Your task to perform on an android device: Go to Wikipedia Image 0: 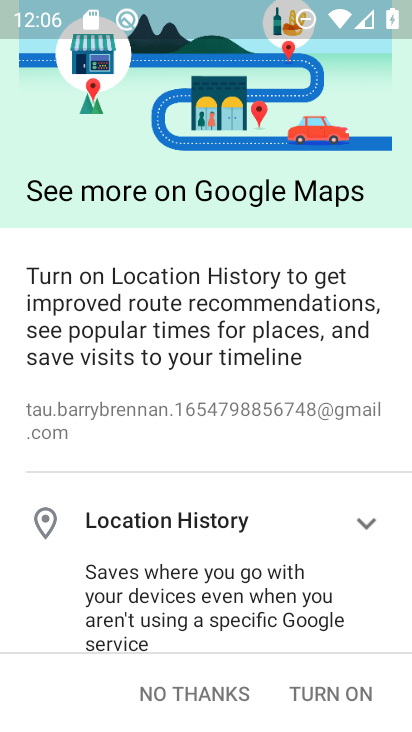
Step 0: press home button
Your task to perform on an android device: Go to Wikipedia Image 1: 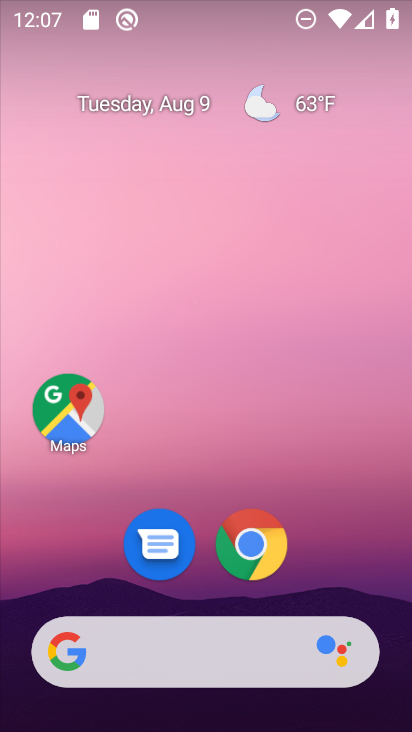
Step 1: click (259, 543)
Your task to perform on an android device: Go to Wikipedia Image 2: 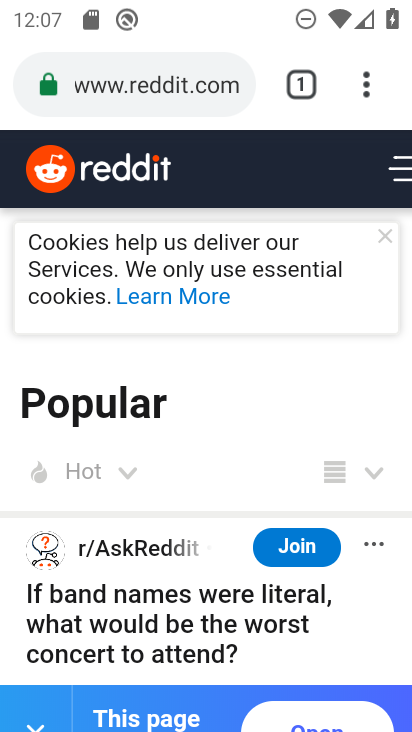
Step 2: click (238, 91)
Your task to perform on an android device: Go to Wikipedia Image 3: 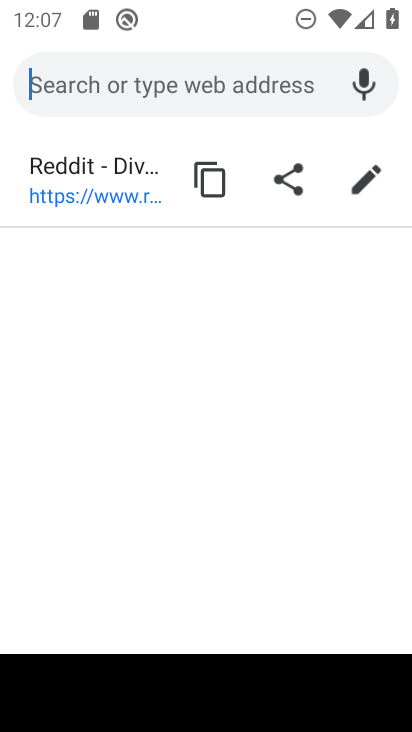
Step 3: click (201, 89)
Your task to perform on an android device: Go to Wikipedia Image 4: 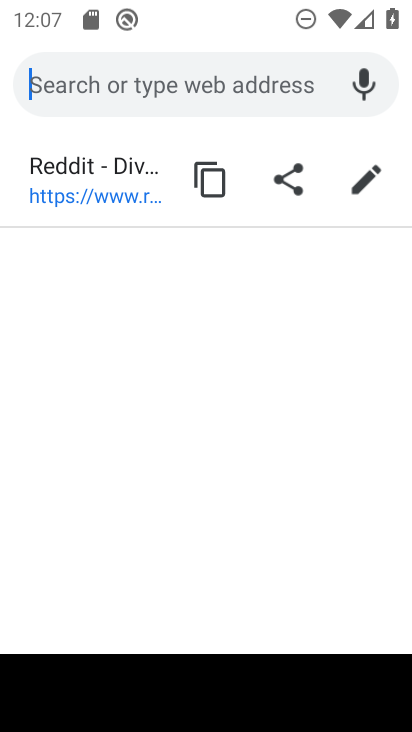
Step 4: type "wikipedia"
Your task to perform on an android device: Go to Wikipedia Image 5: 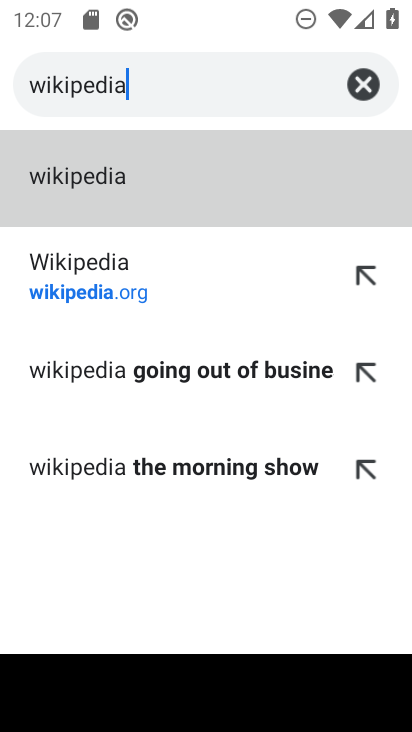
Step 5: click (124, 175)
Your task to perform on an android device: Go to Wikipedia Image 6: 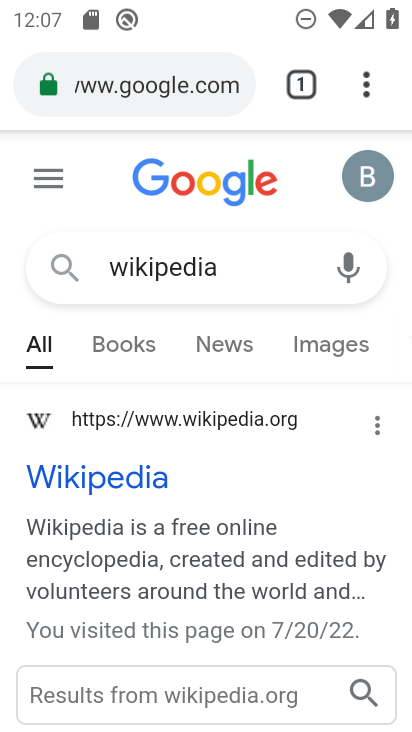
Step 6: click (87, 482)
Your task to perform on an android device: Go to Wikipedia Image 7: 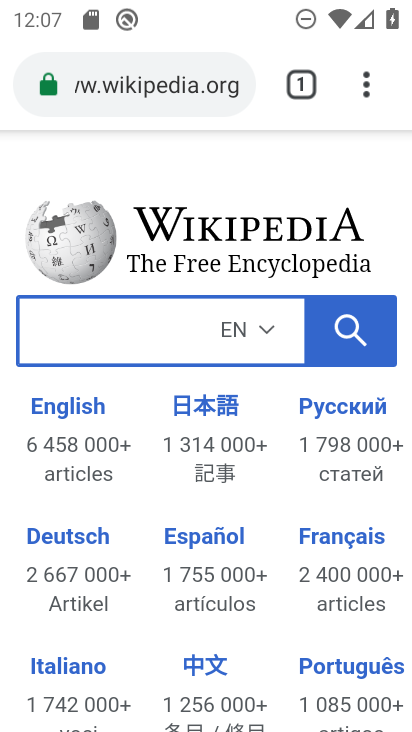
Step 7: task complete